Your task to perform on an android device: Go to Google maps Image 0: 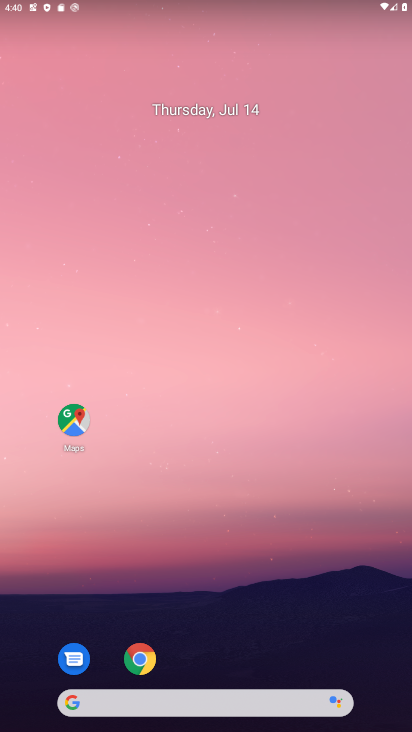
Step 0: click (73, 416)
Your task to perform on an android device: Go to Google maps Image 1: 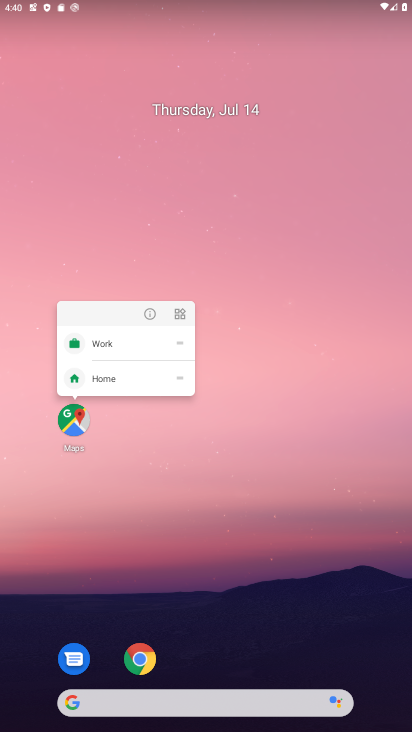
Step 1: click (67, 415)
Your task to perform on an android device: Go to Google maps Image 2: 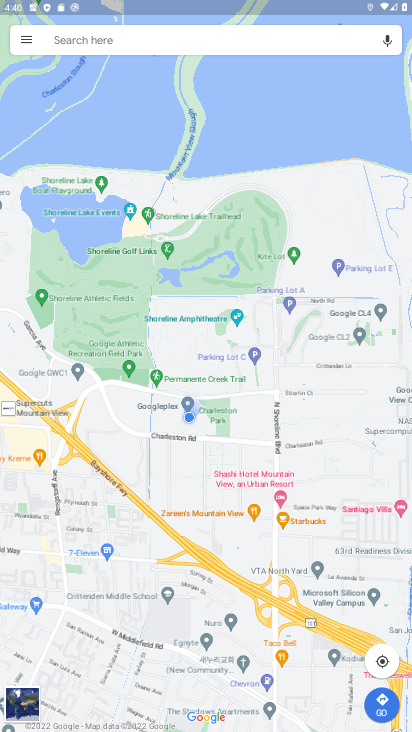
Step 2: task complete